Your task to perform on an android device: create a new album in the google photos Image 0: 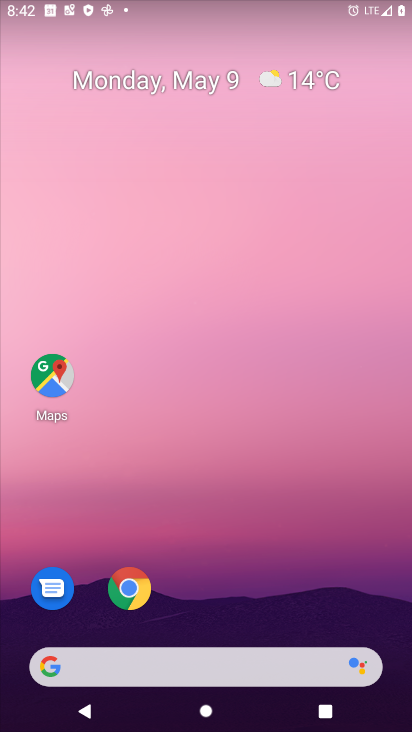
Step 0: drag from (321, 614) to (216, 74)
Your task to perform on an android device: create a new album in the google photos Image 1: 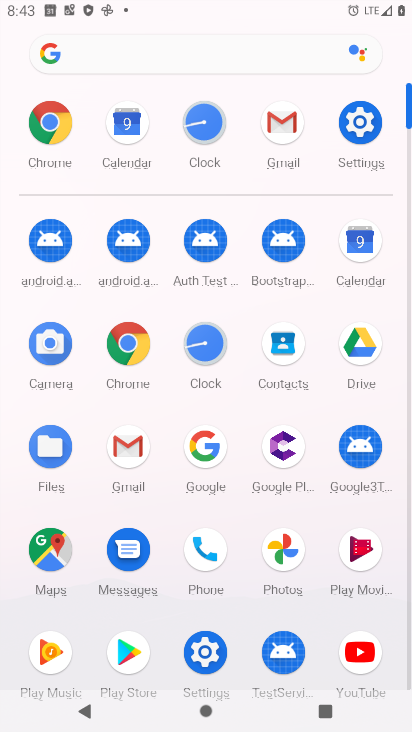
Step 1: click (285, 555)
Your task to perform on an android device: create a new album in the google photos Image 2: 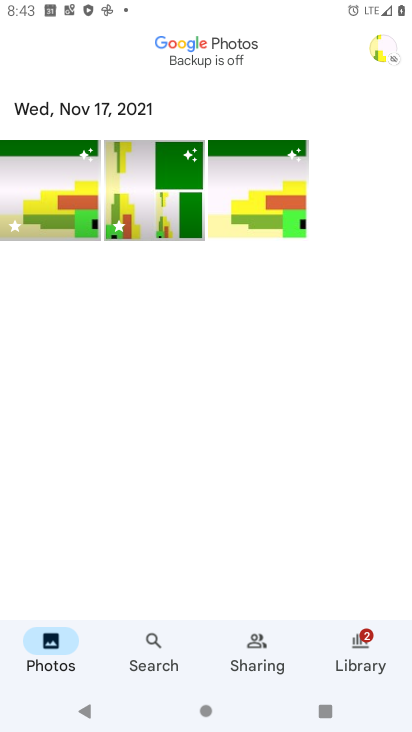
Step 2: click (61, 214)
Your task to perform on an android device: create a new album in the google photos Image 3: 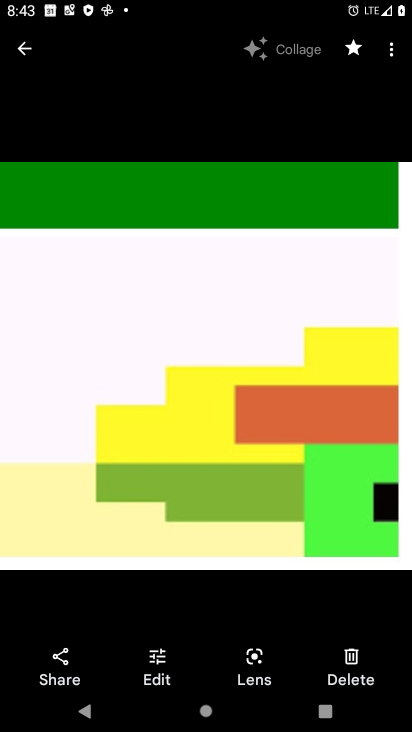
Step 3: click (390, 45)
Your task to perform on an android device: create a new album in the google photos Image 4: 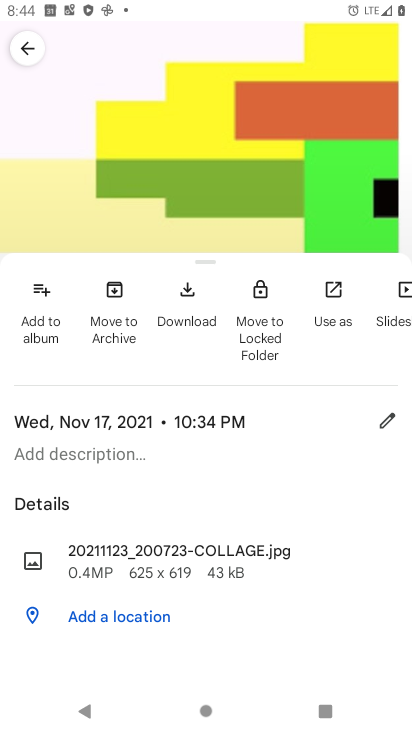
Step 4: press back button
Your task to perform on an android device: create a new album in the google photos Image 5: 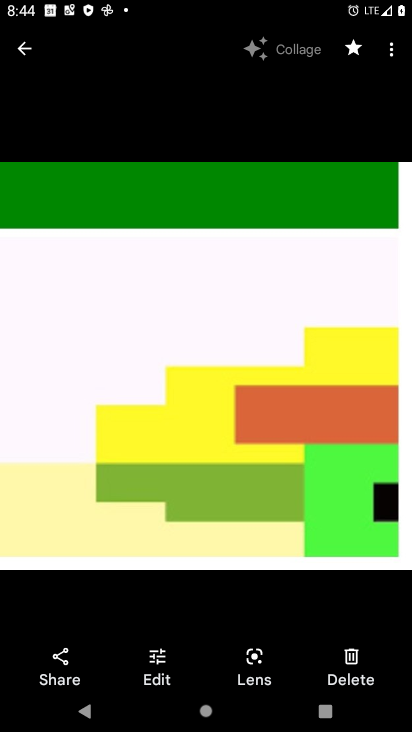
Step 5: press back button
Your task to perform on an android device: create a new album in the google photos Image 6: 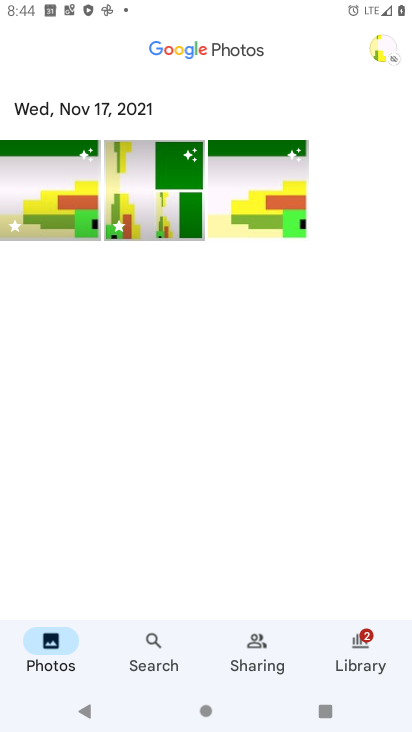
Step 6: click (51, 205)
Your task to perform on an android device: create a new album in the google photos Image 7: 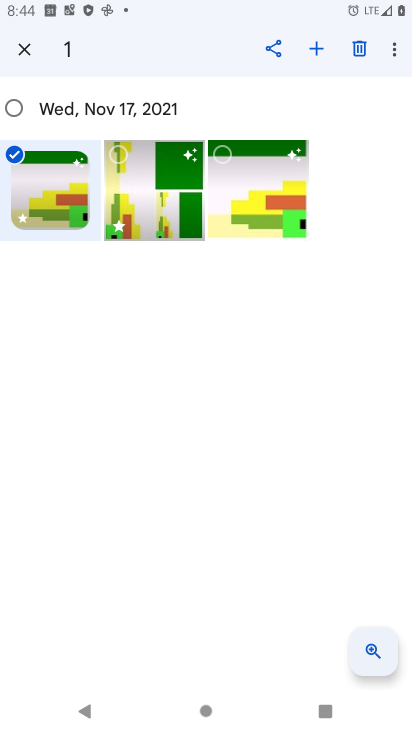
Step 7: click (310, 50)
Your task to perform on an android device: create a new album in the google photos Image 8: 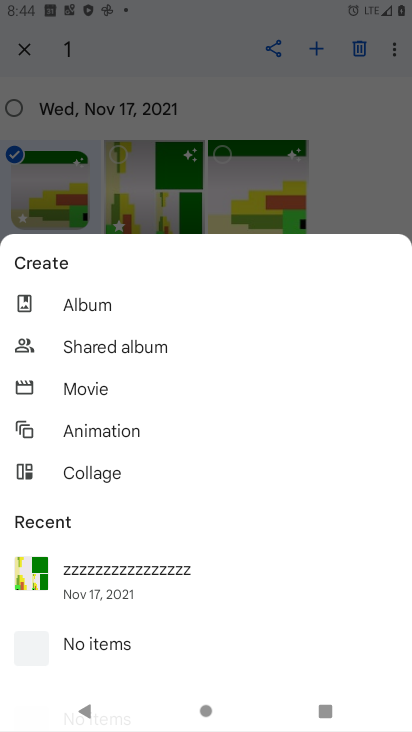
Step 8: click (111, 308)
Your task to perform on an android device: create a new album in the google photos Image 9: 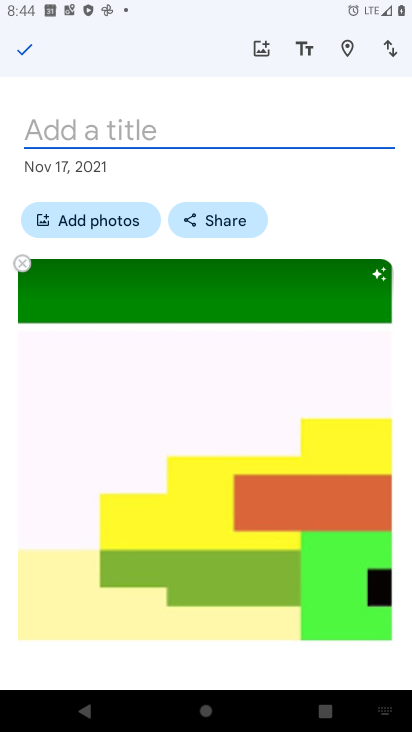
Step 9: type "ZO"
Your task to perform on an android device: create a new album in the google photos Image 10: 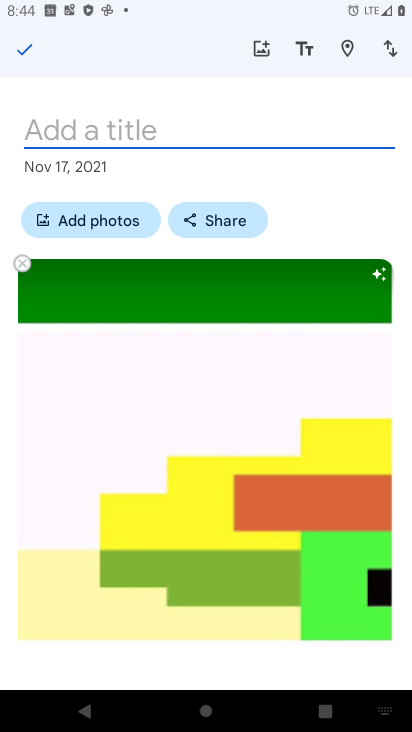
Step 10: click (36, 55)
Your task to perform on an android device: create a new album in the google photos Image 11: 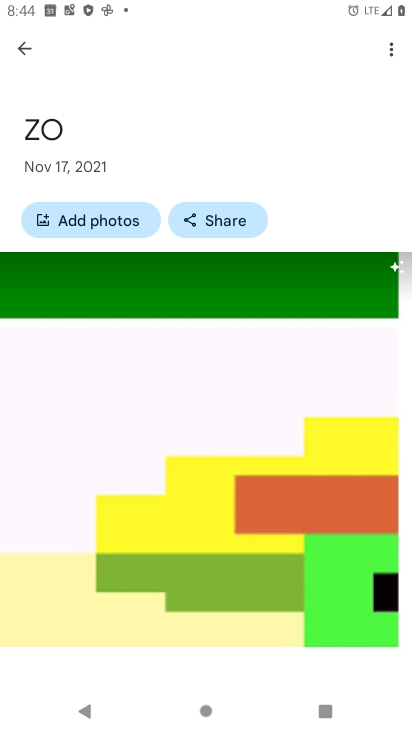
Step 11: task complete